Your task to perform on an android device: Do I have any events tomorrow? Image 0: 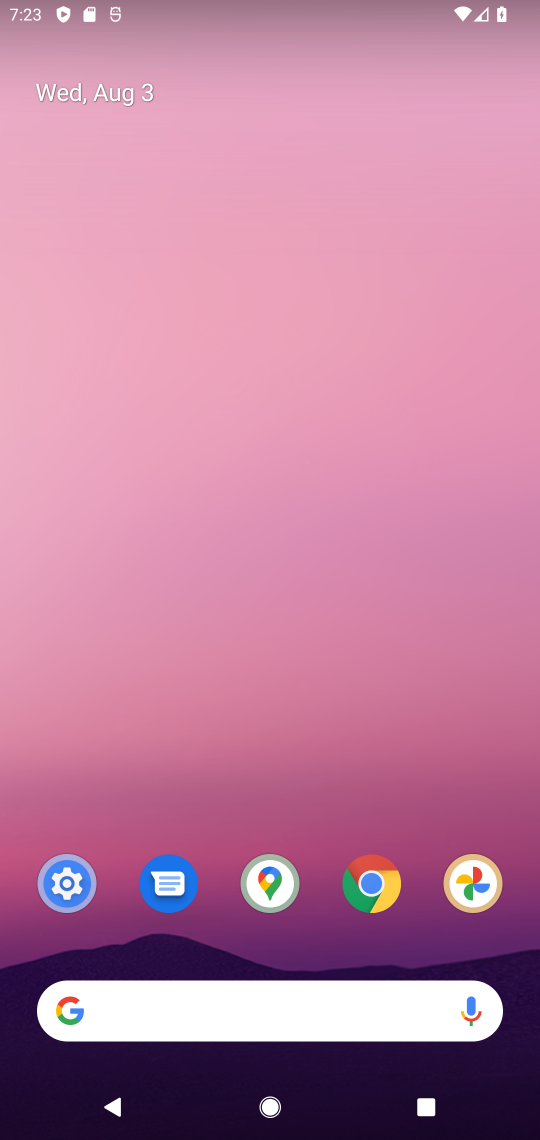
Step 0: drag from (422, 841) to (376, 171)
Your task to perform on an android device: Do I have any events tomorrow? Image 1: 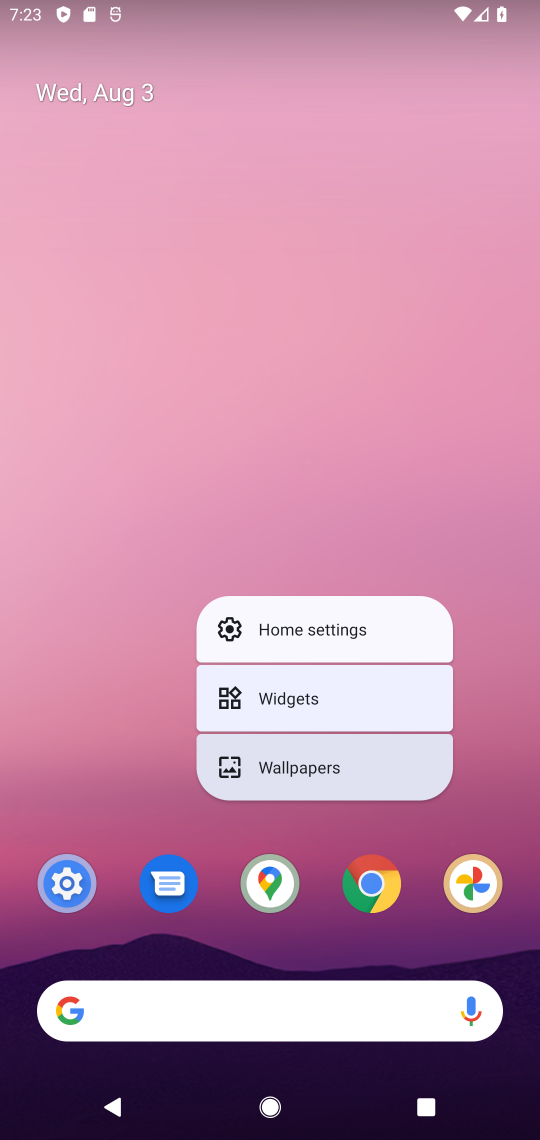
Step 1: drag from (530, 978) to (405, 112)
Your task to perform on an android device: Do I have any events tomorrow? Image 2: 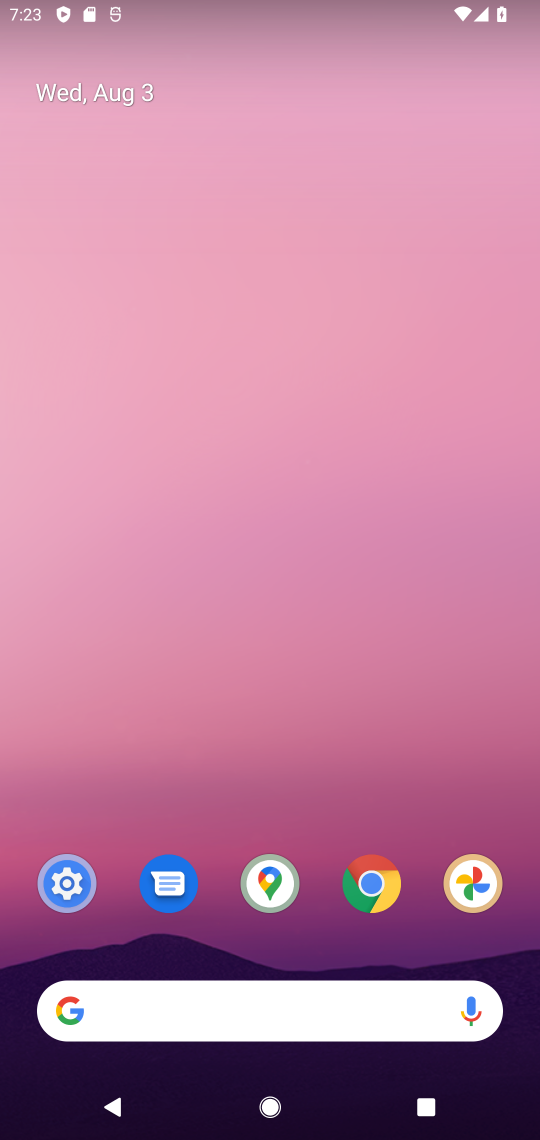
Step 2: drag from (425, 955) to (365, 299)
Your task to perform on an android device: Do I have any events tomorrow? Image 3: 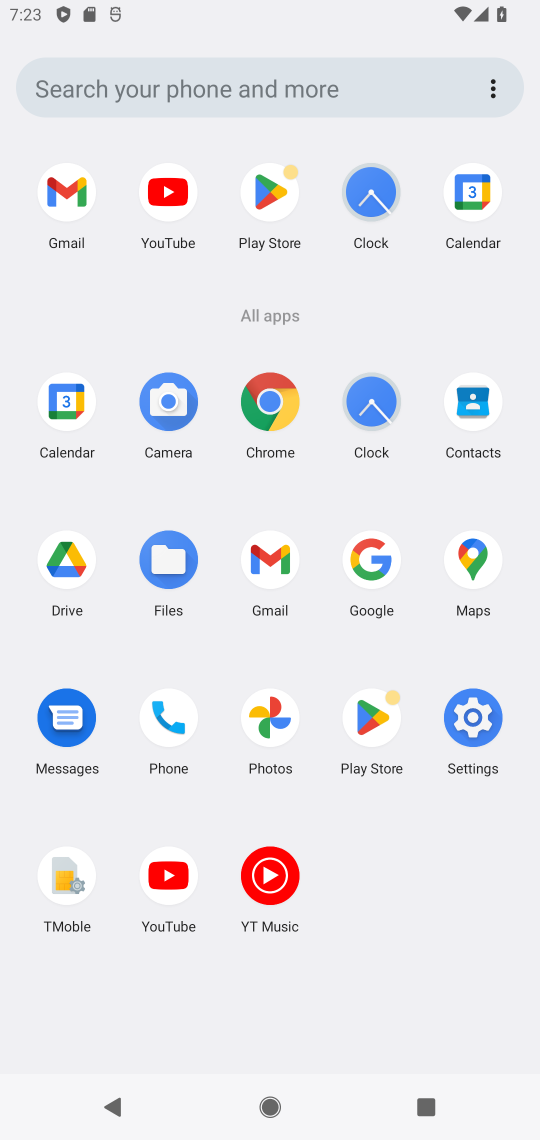
Step 3: click (487, 173)
Your task to perform on an android device: Do I have any events tomorrow? Image 4: 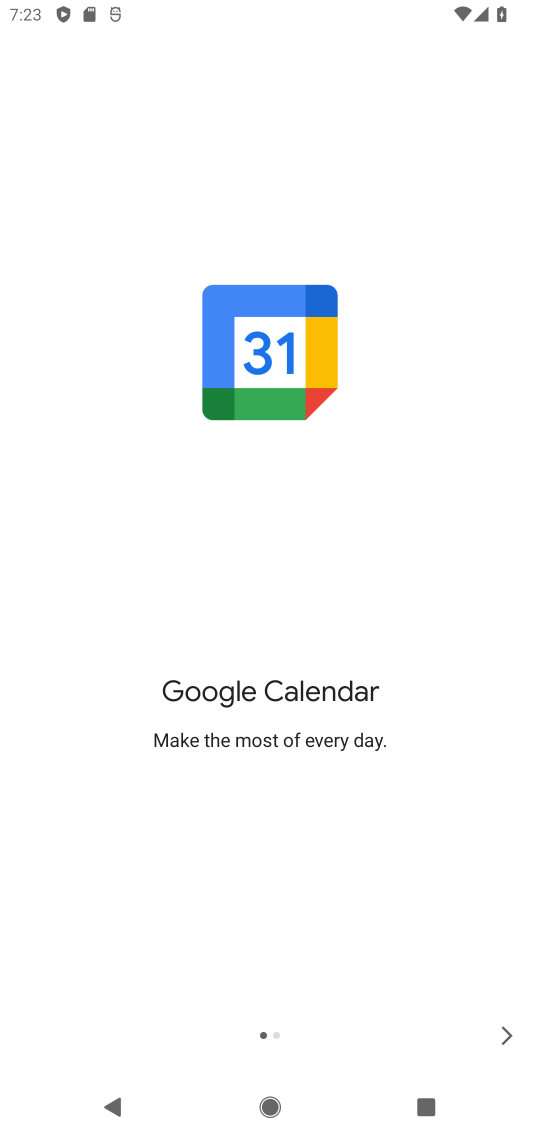
Step 4: click (498, 1047)
Your task to perform on an android device: Do I have any events tomorrow? Image 5: 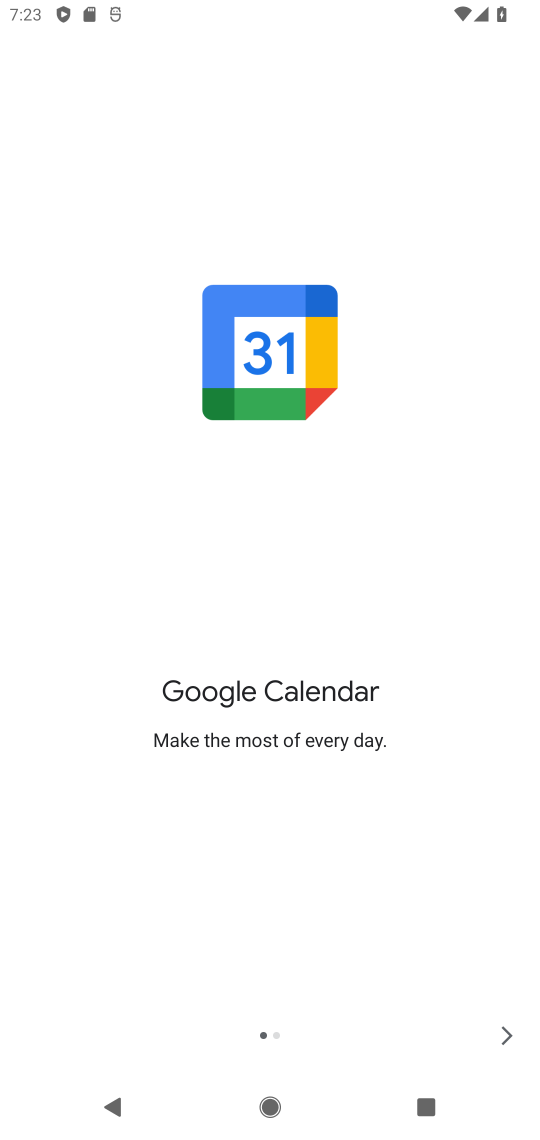
Step 5: click (498, 1047)
Your task to perform on an android device: Do I have any events tomorrow? Image 6: 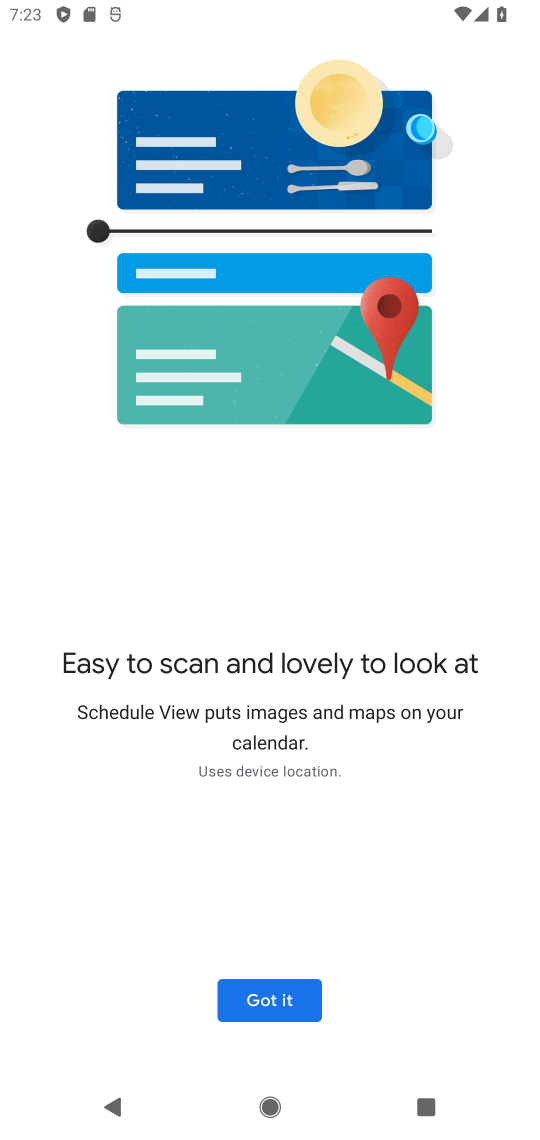
Step 6: click (269, 1009)
Your task to perform on an android device: Do I have any events tomorrow? Image 7: 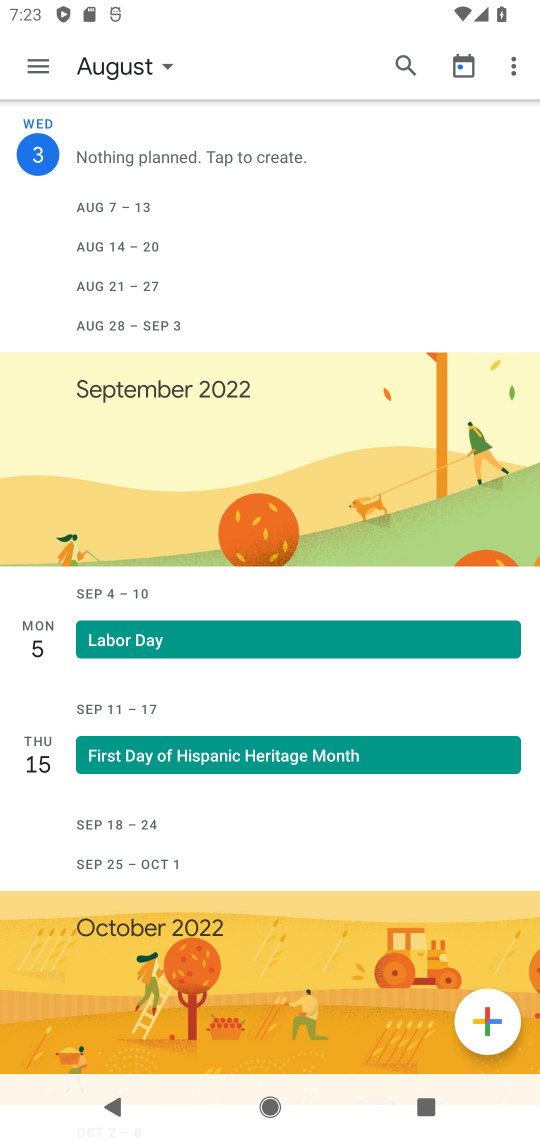
Step 7: click (34, 66)
Your task to perform on an android device: Do I have any events tomorrow? Image 8: 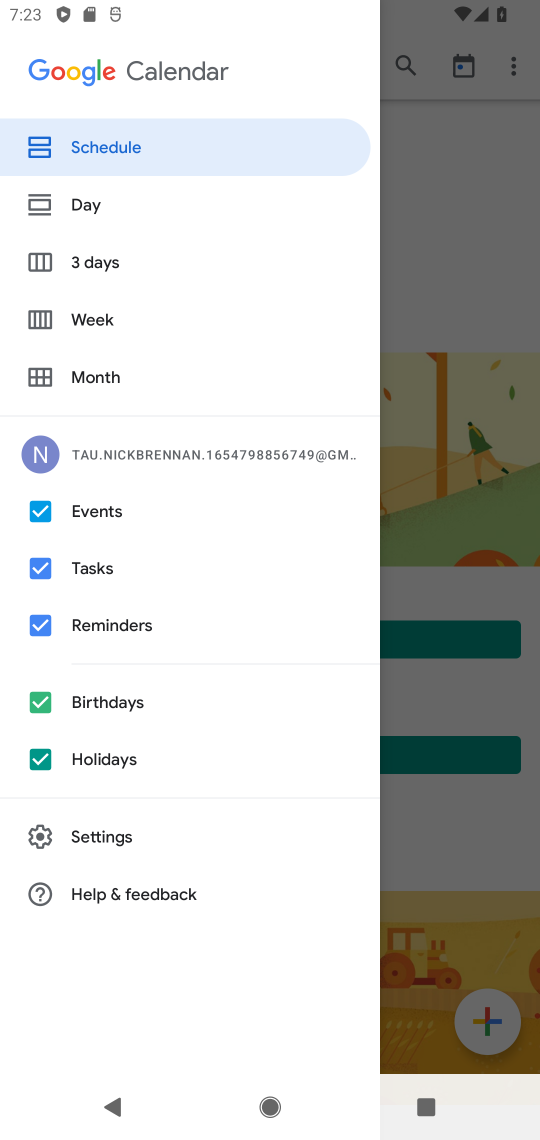
Step 8: click (44, 767)
Your task to perform on an android device: Do I have any events tomorrow? Image 9: 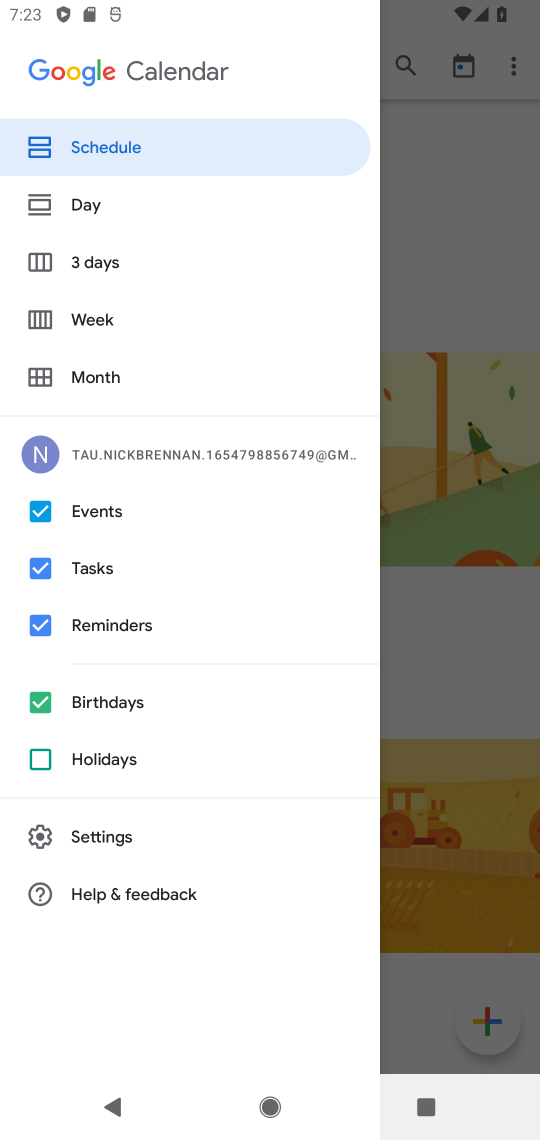
Step 9: click (36, 699)
Your task to perform on an android device: Do I have any events tomorrow? Image 10: 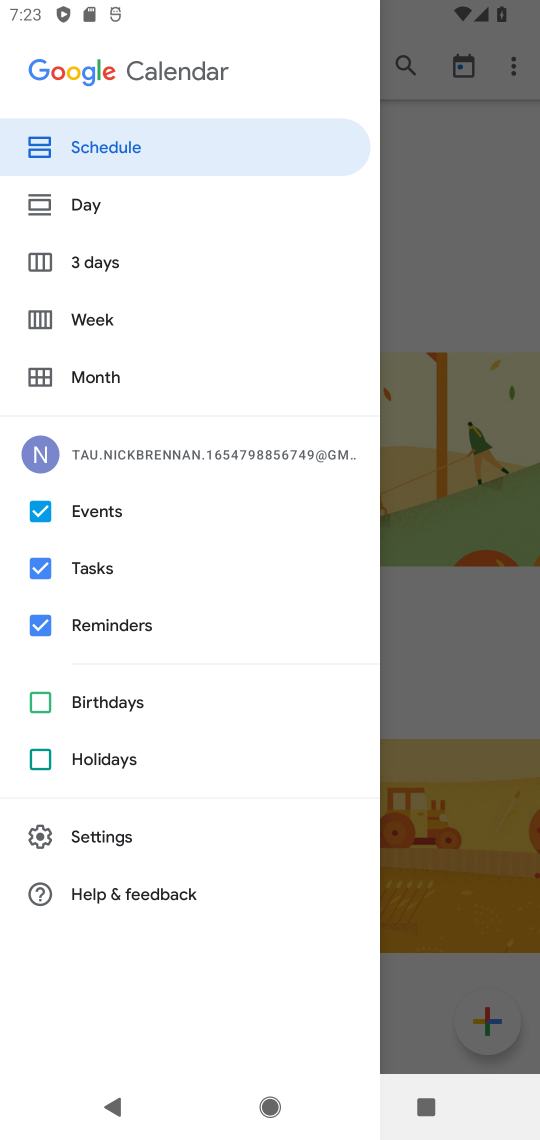
Step 10: click (37, 621)
Your task to perform on an android device: Do I have any events tomorrow? Image 11: 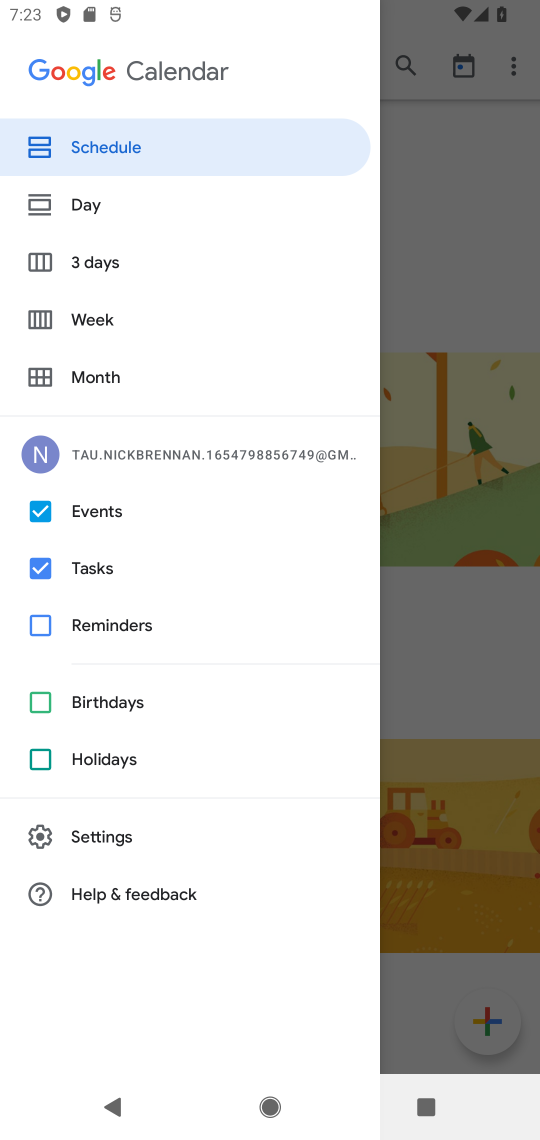
Step 11: click (38, 579)
Your task to perform on an android device: Do I have any events tomorrow? Image 12: 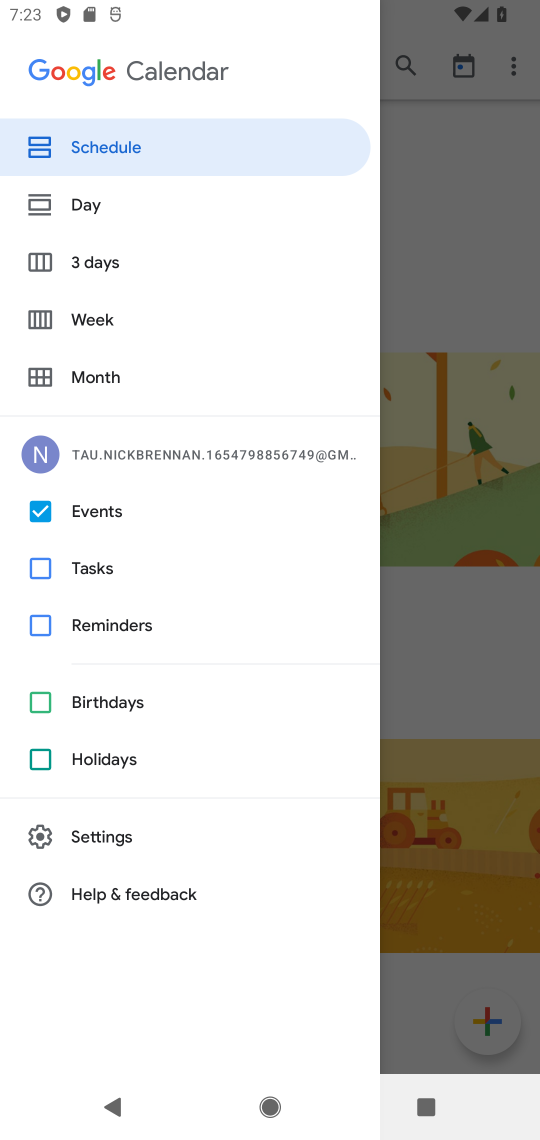
Step 12: click (166, 209)
Your task to perform on an android device: Do I have any events tomorrow? Image 13: 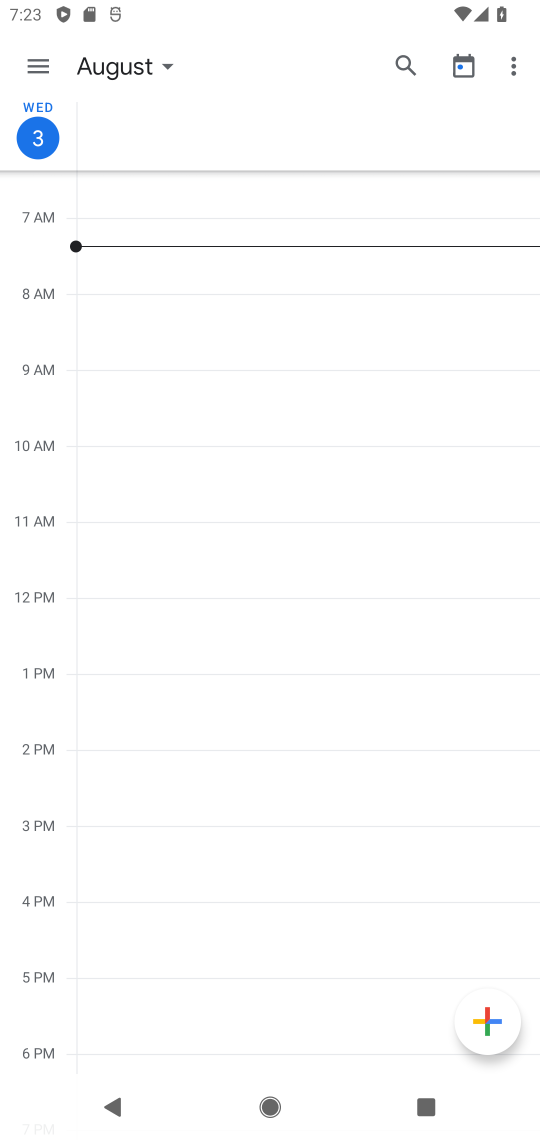
Step 13: task complete